Your task to perform on an android device: Go to display settings Image 0: 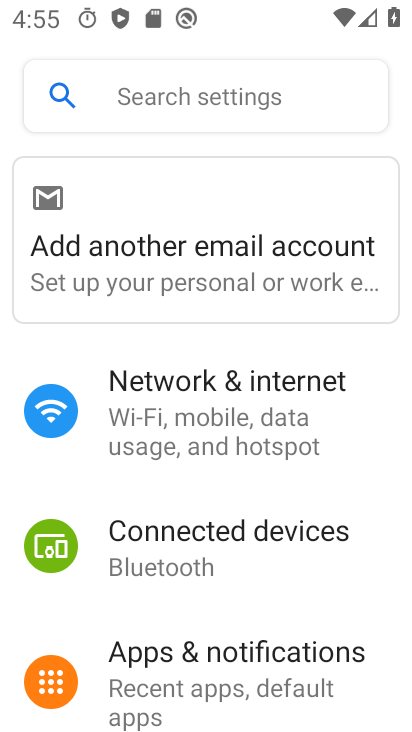
Step 0: drag from (275, 591) to (273, 363)
Your task to perform on an android device: Go to display settings Image 1: 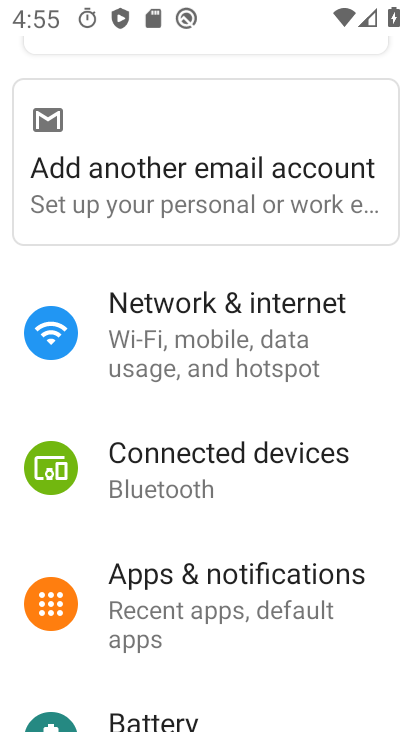
Step 1: drag from (206, 645) to (196, 292)
Your task to perform on an android device: Go to display settings Image 2: 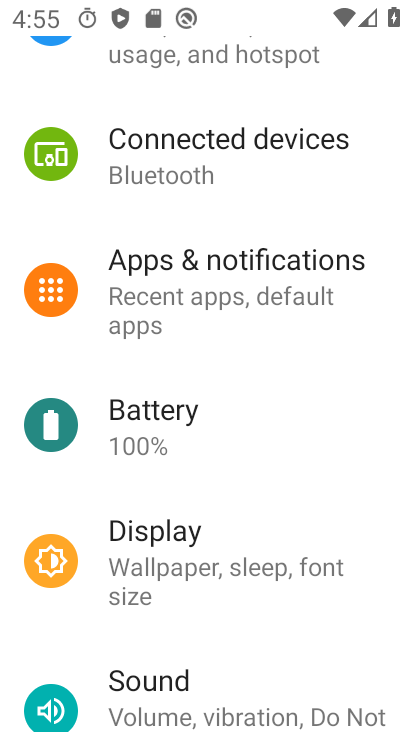
Step 2: drag from (251, 650) to (235, 305)
Your task to perform on an android device: Go to display settings Image 3: 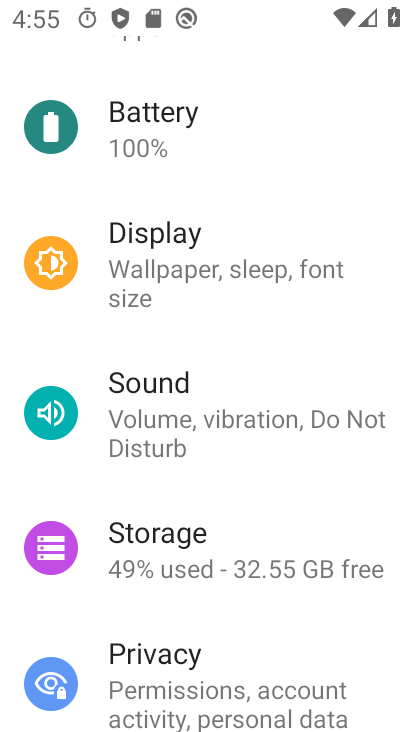
Step 3: drag from (273, 217) to (246, 508)
Your task to perform on an android device: Go to display settings Image 4: 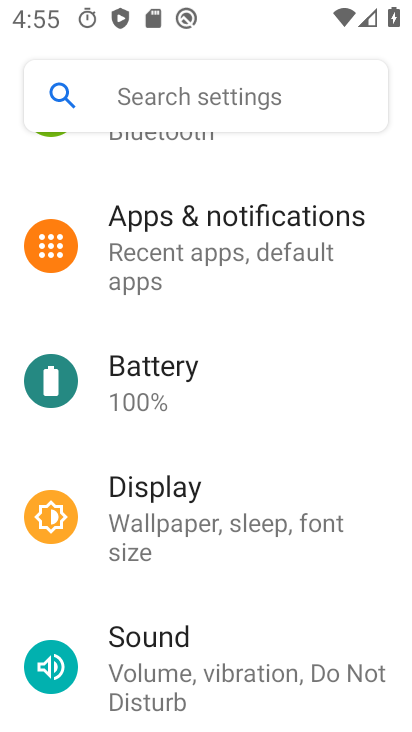
Step 4: drag from (266, 345) to (249, 536)
Your task to perform on an android device: Go to display settings Image 5: 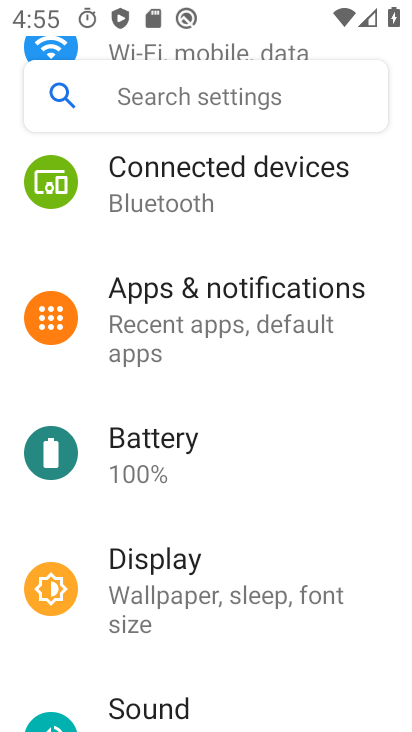
Step 5: drag from (256, 259) to (250, 528)
Your task to perform on an android device: Go to display settings Image 6: 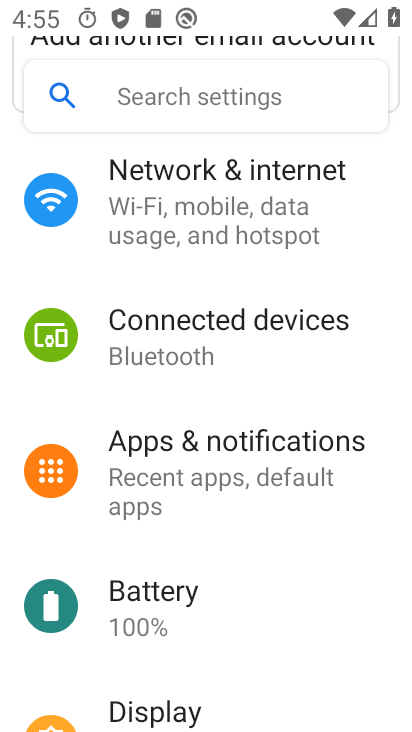
Step 6: drag from (301, 267) to (296, 596)
Your task to perform on an android device: Go to display settings Image 7: 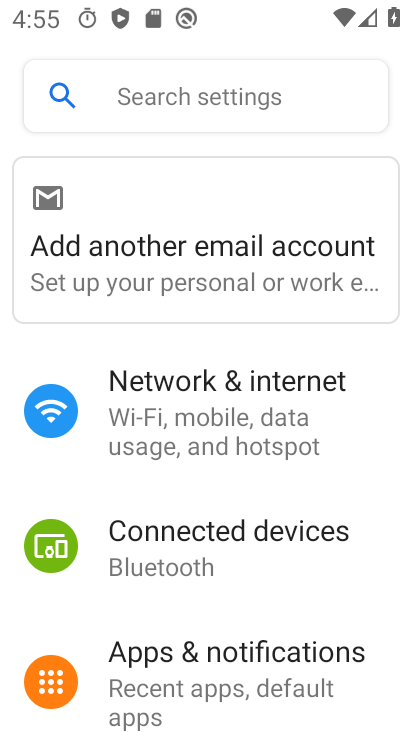
Step 7: drag from (230, 637) to (214, 344)
Your task to perform on an android device: Go to display settings Image 8: 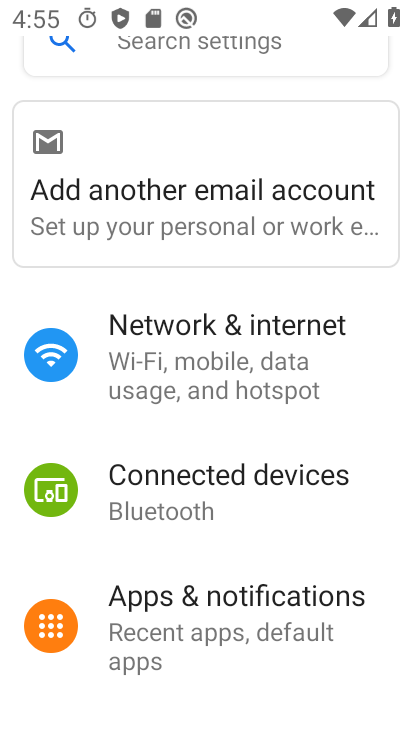
Step 8: drag from (182, 657) to (213, 267)
Your task to perform on an android device: Go to display settings Image 9: 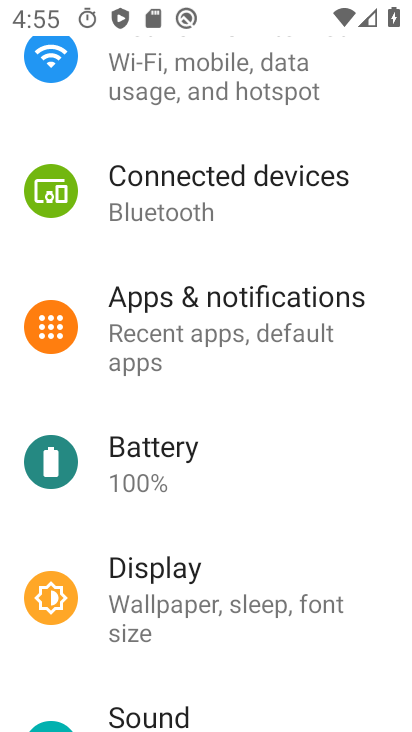
Step 9: click (166, 610)
Your task to perform on an android device: Go to display settings Image 10: 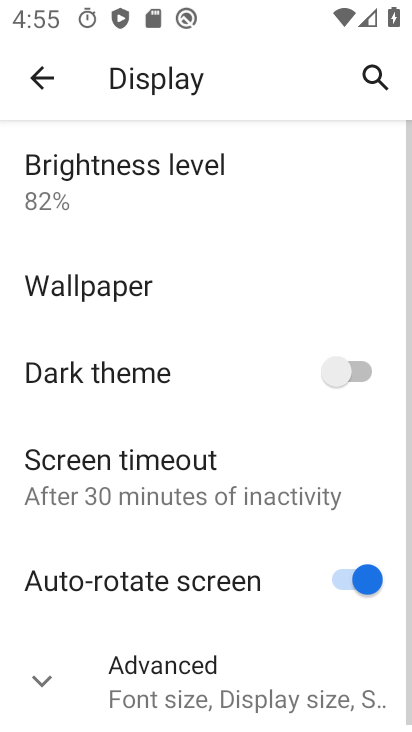
Step 10: task complete